Your task to perform on an android device: open app "Microsoft Excel" Image 0: 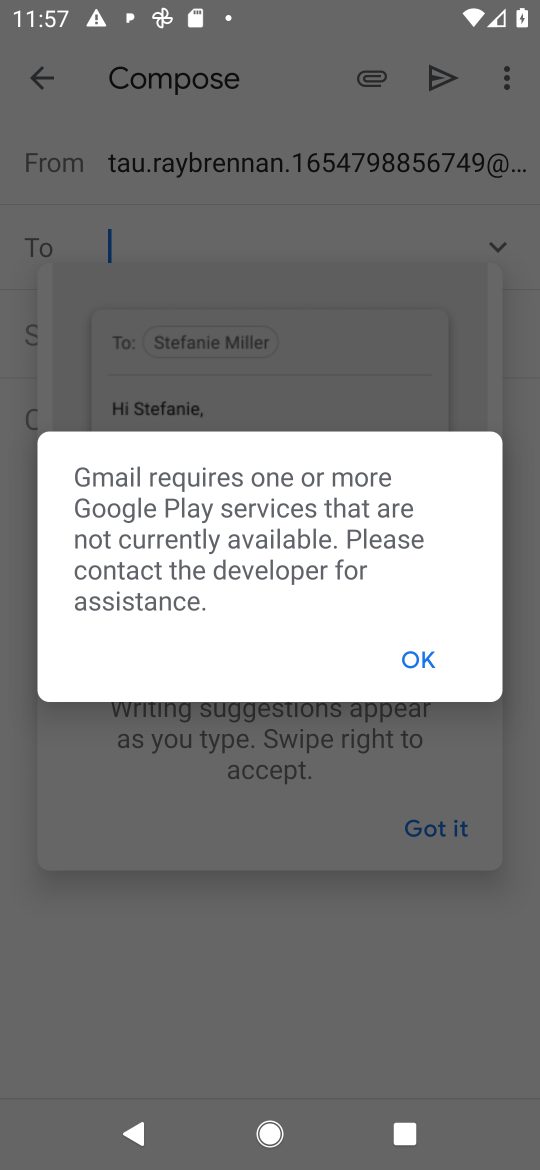
Step 0: press home button
Your task to perform on an android device: open app "Microsoft Excel" Image 1: 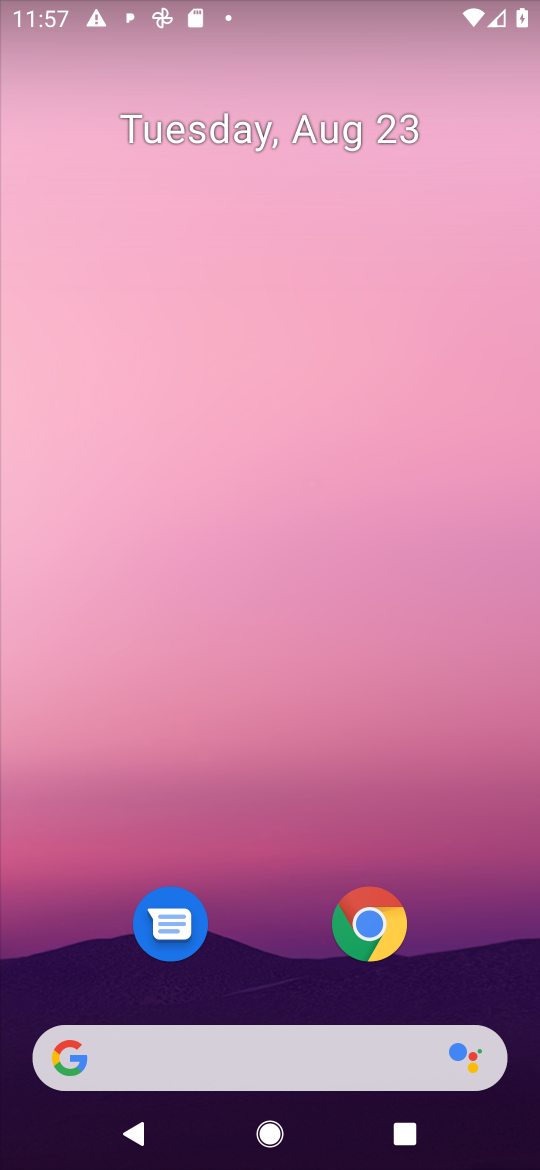
Step 1: drag from (452, 945) to (465, 98)
Your task to perform on an android device: open app "Microsoft Excel" Image 2: 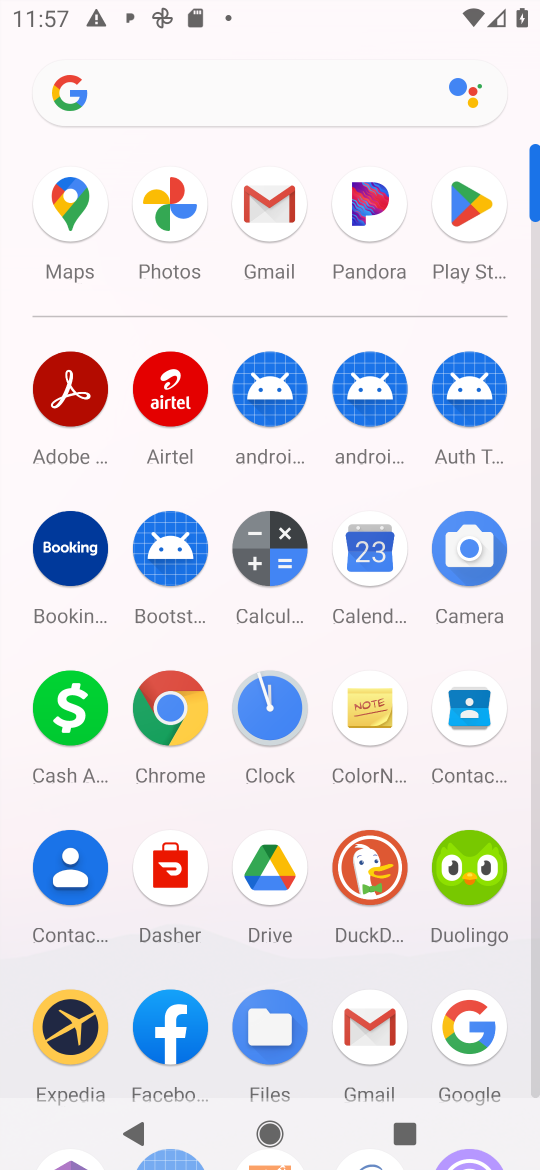
Step 2: click (458, 221)
Your task to perform on an android device: open app "Microsoft Excel" Image 3: 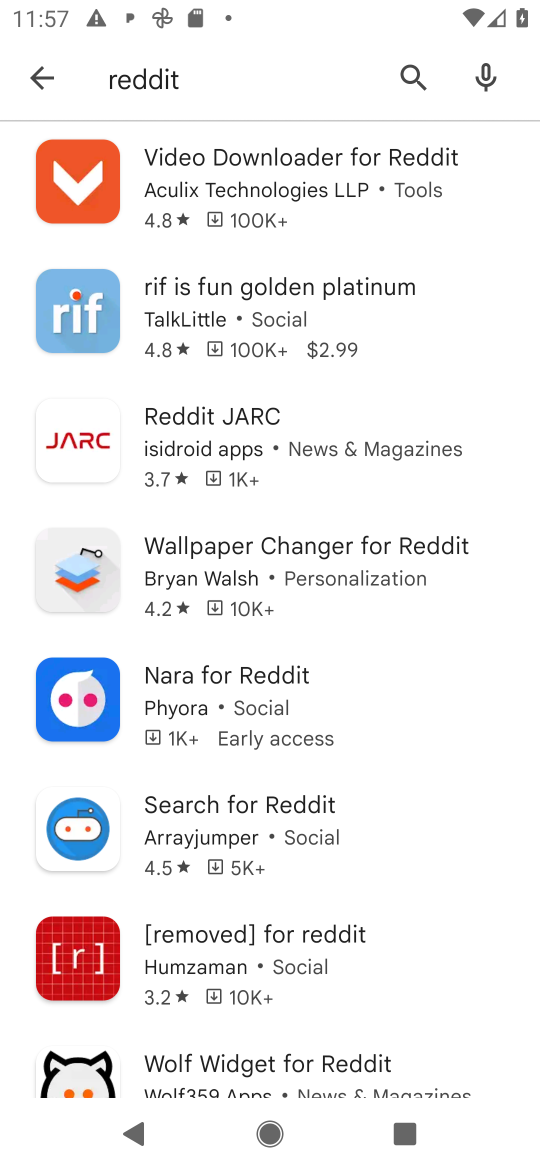
Step 3: press back button
Your task to perform on an android device: open app "Microsoft Excel" Image 4: 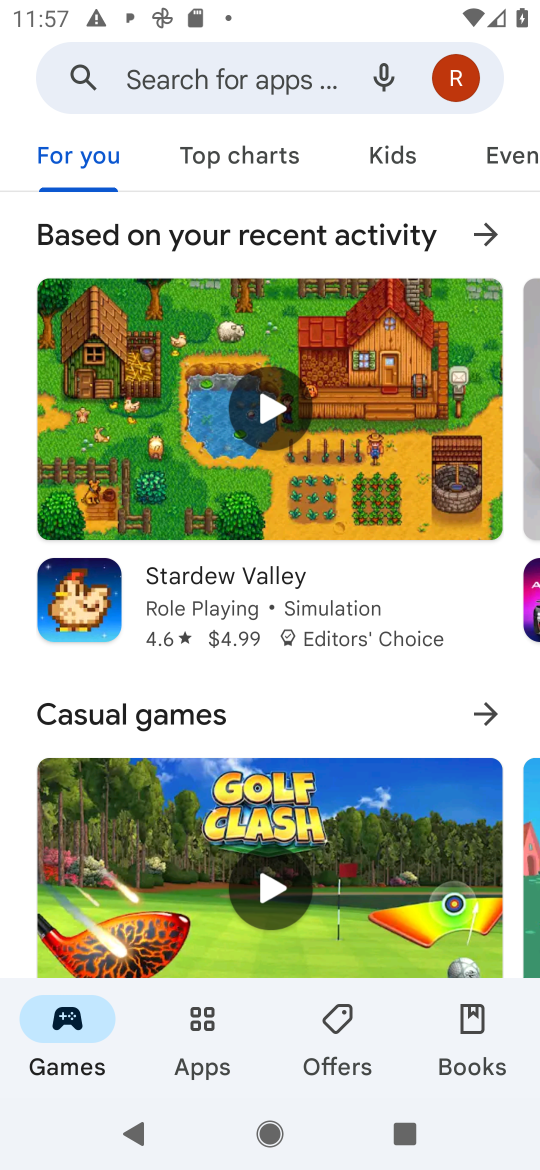
Step 4: click (266, 81)
Your task to perform on an android device: open app "Microsoft Excel" Image 5: 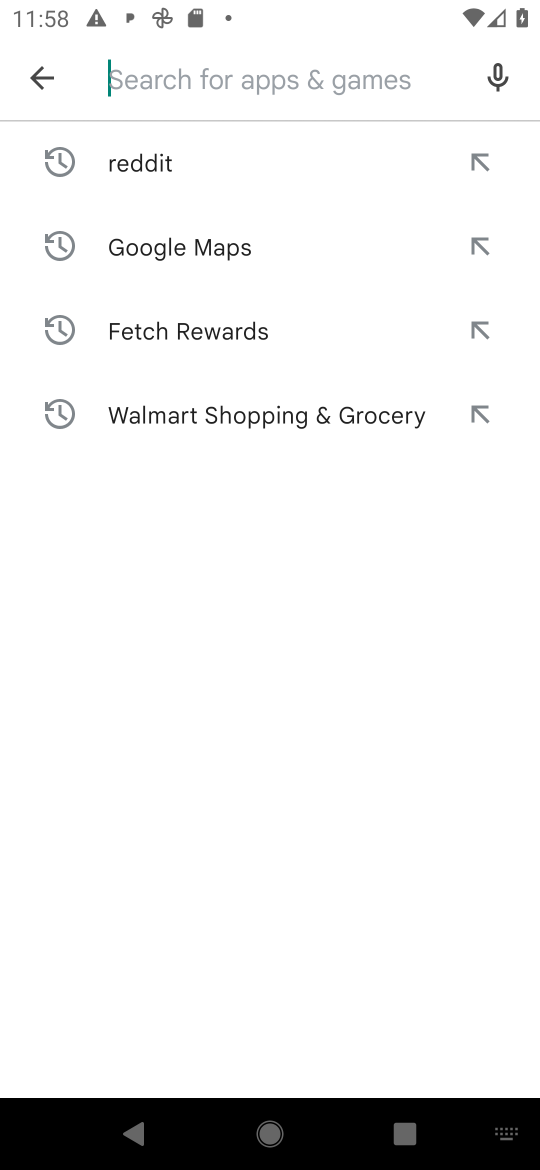
Step 5: type "Microsoft Excel"
Your task to perform on an android device: open app "Microsoft Excel" Image 6: 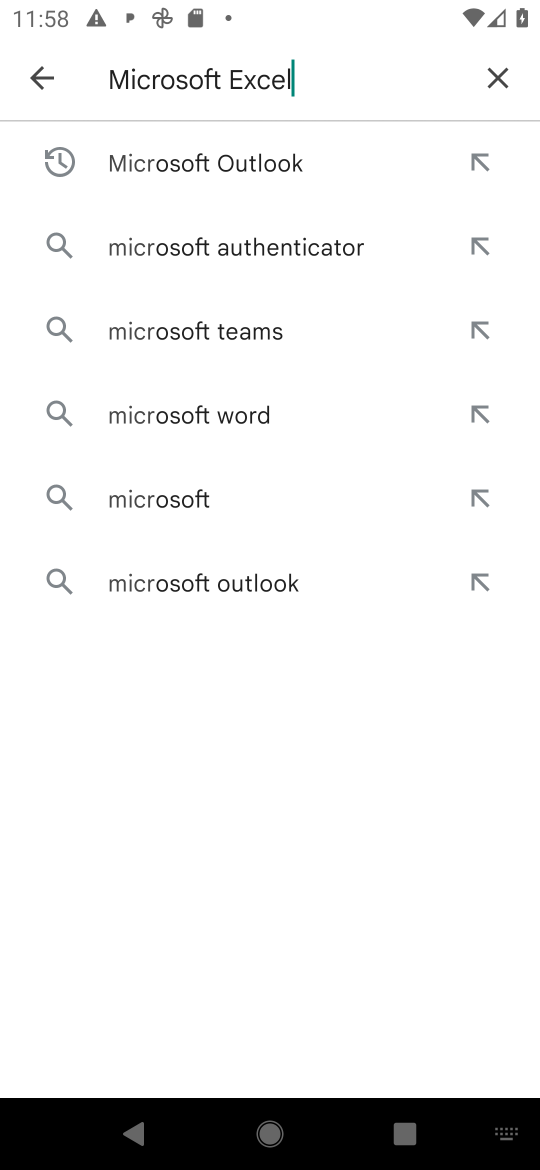
Step 6: press enter
Your task to perform on an android device: open app "Microsoft Excel" Image 7: 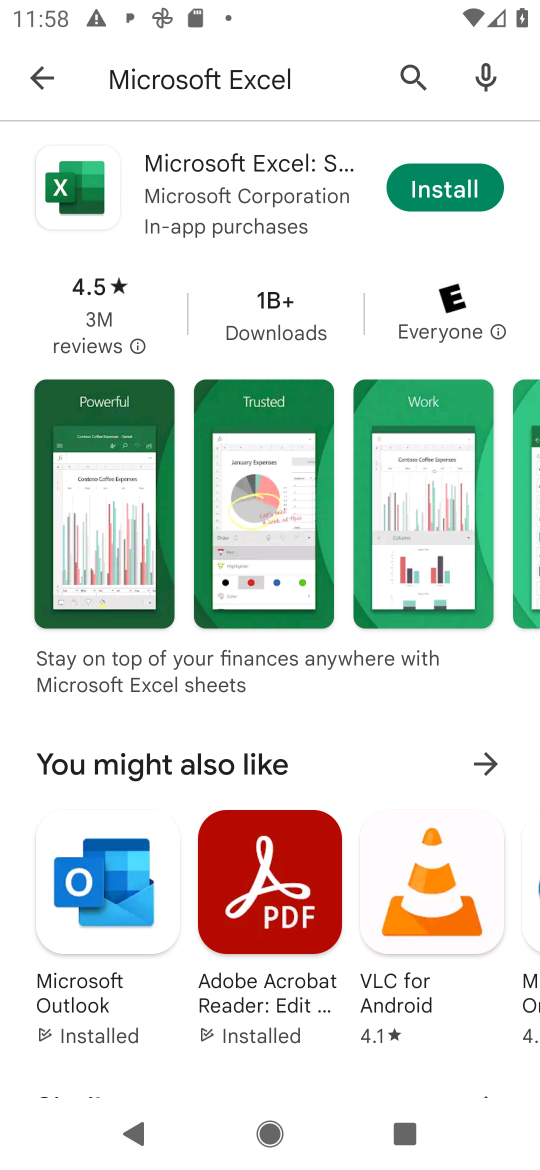
Step 7: task complete